Your task to perform on an android device: Show me popular games on the Play Store Image 0: 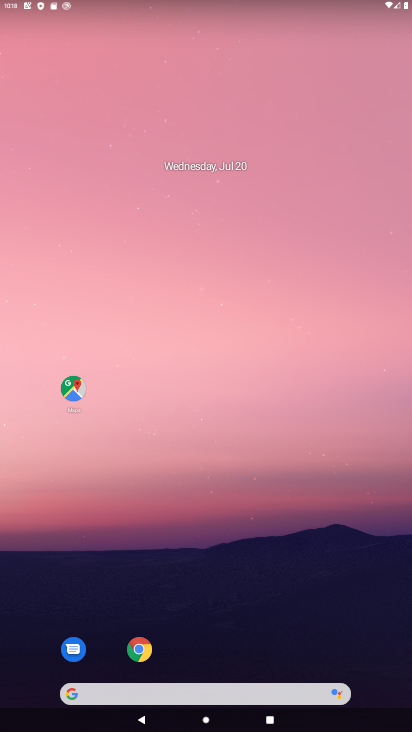
Step 0: drag from (202, 628) to (286, 10)
Your task to perform on an android device: Show me popular games on the Play Store Image 1: 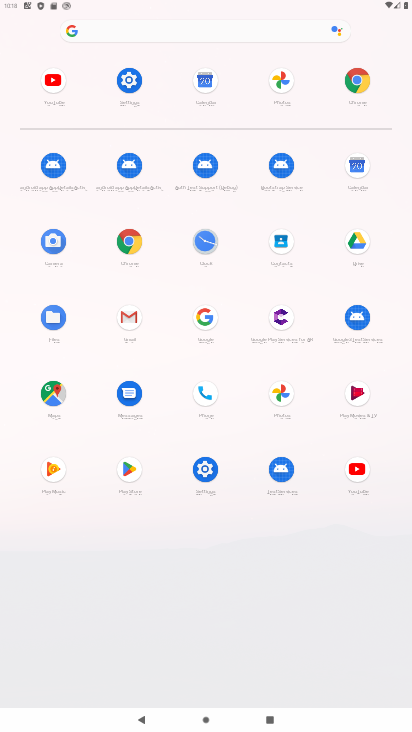
Step 1: click (124, 480)
Your task to perform on an android device: Show me popular games on the Play Store Image 2: 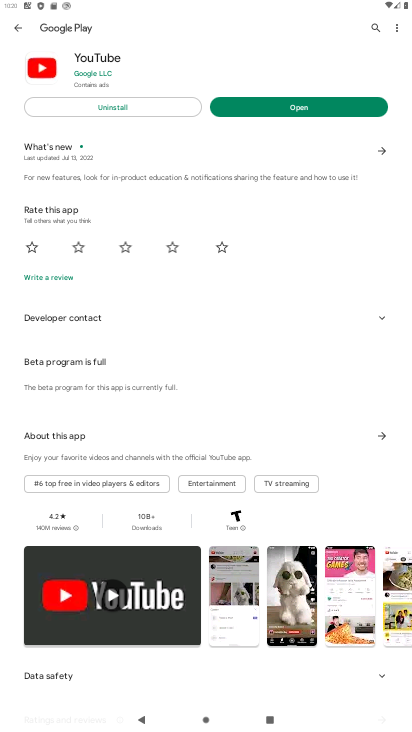
Step 2: task complete